Your task to perform on an android device: What's on my calendar today? Image 0: 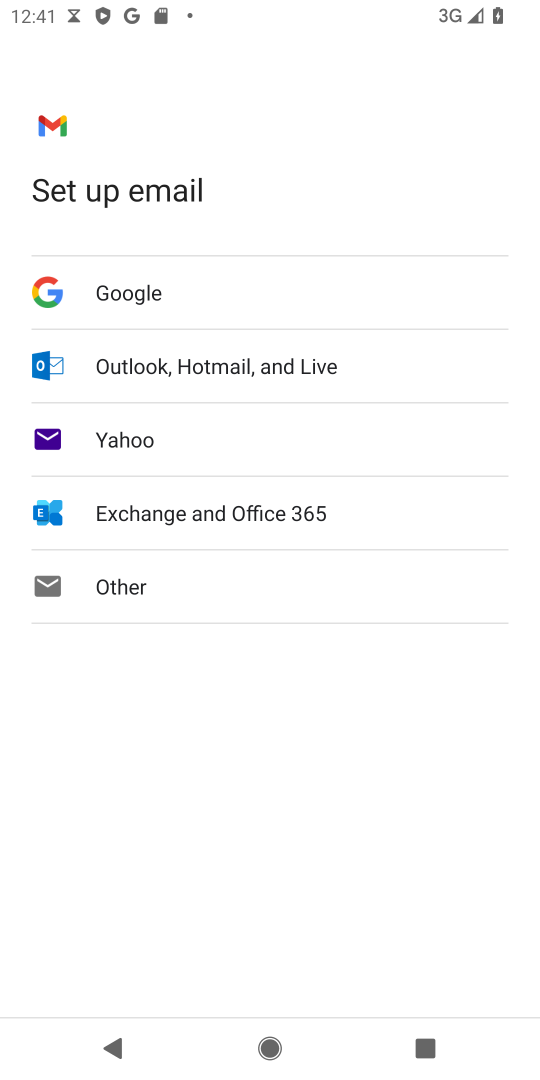
Step 0: press home button
Your task to perform on an android device: What's on my calendar today? Image 1: 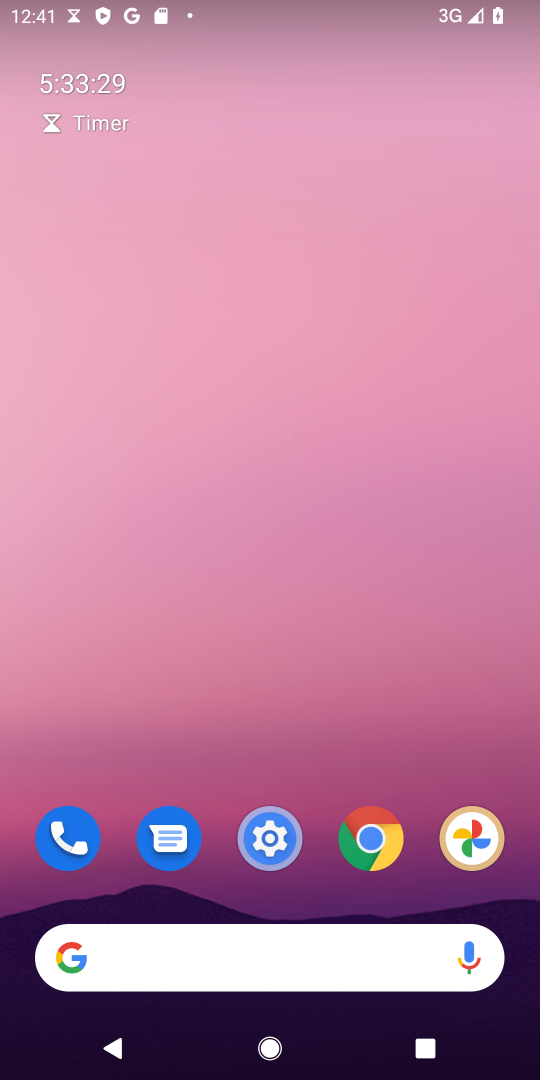
Step 1: drag from (241, 750) to (202, 274)
Your task to perform on an android device: What's on my calendar today? Image 2: 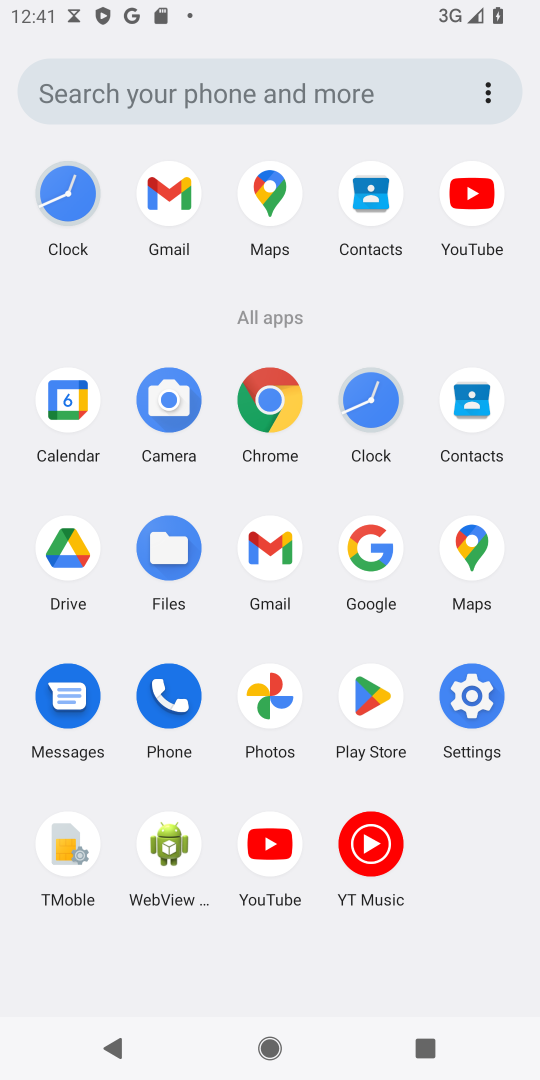
Step 2: click (75, 418)
Your task to perform on an android device: What's on my calendar today? Image 3: 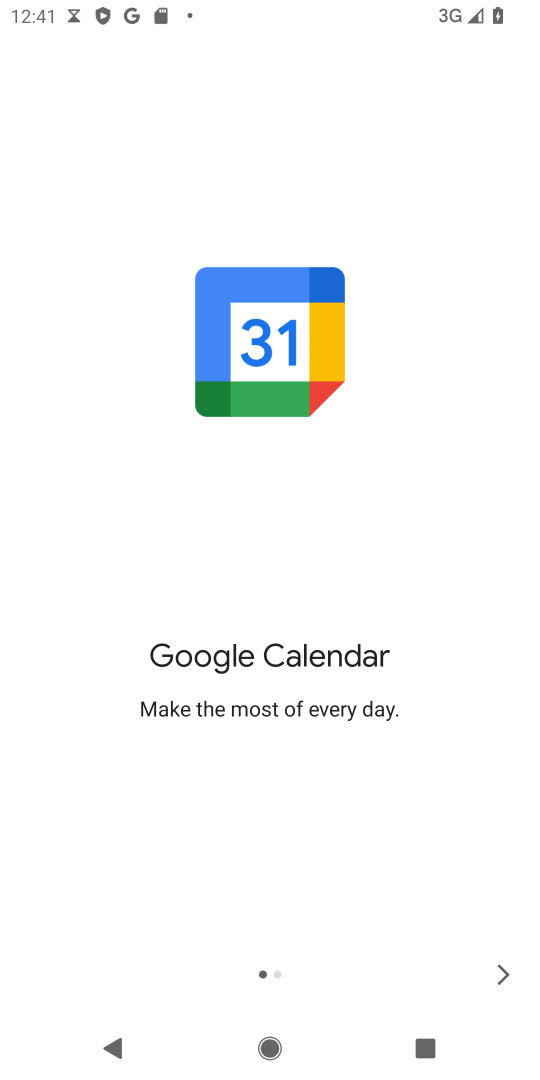
Step 3: click (509, 962)
Your task to perform on an android device: What's on my calendar today? Image 4: 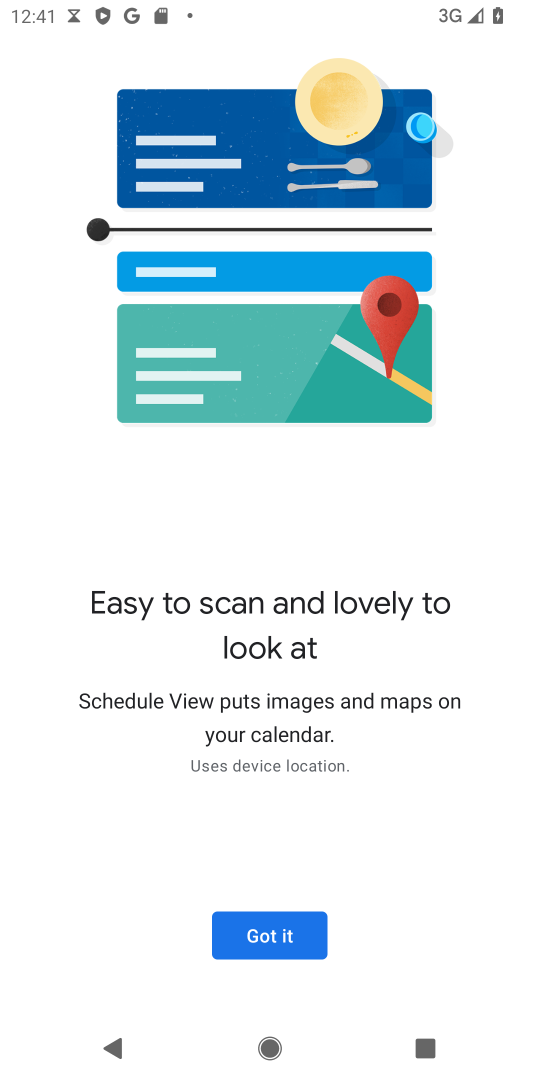
Step 4: click (273, 933)
Your task to perform on an android device: What's on my calendar today? Image 5: 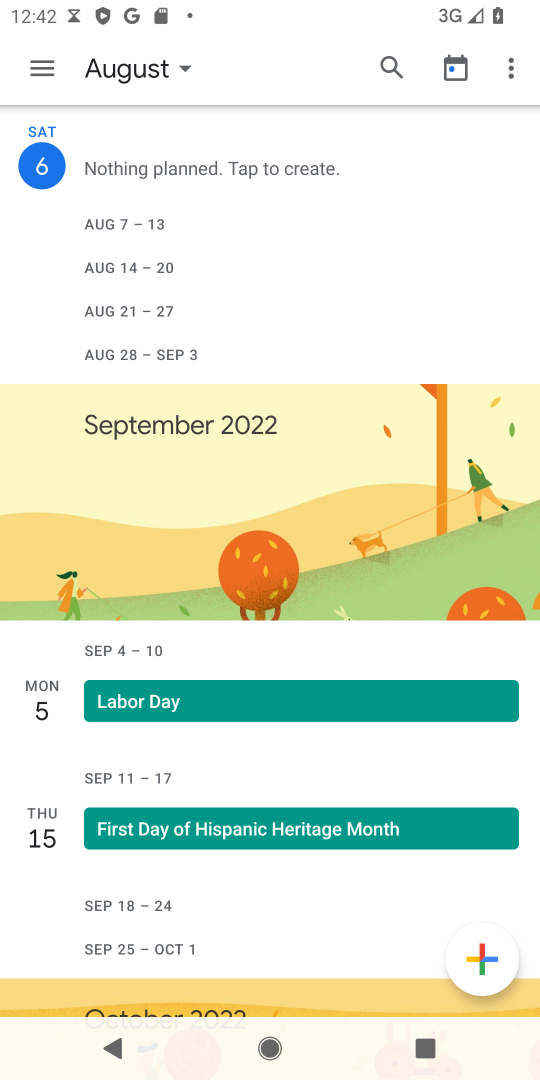
Step 5: click (150, 49)
Your task to perform on an android device: What's on my calendar today? Image 6: 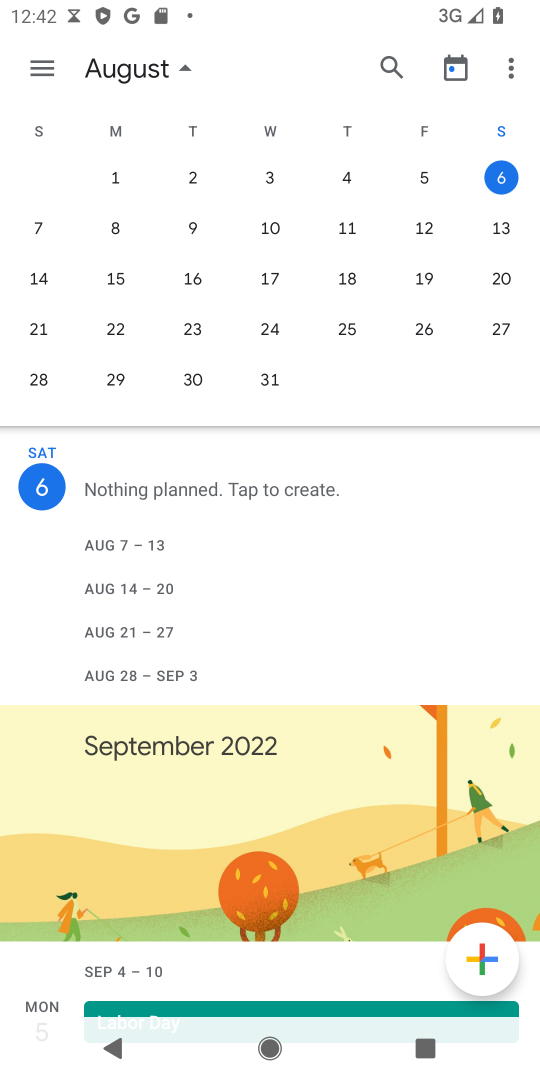
Step 6: click (512, 170)
Your task to perform on an android device: What's on my calendar today? Image 7: 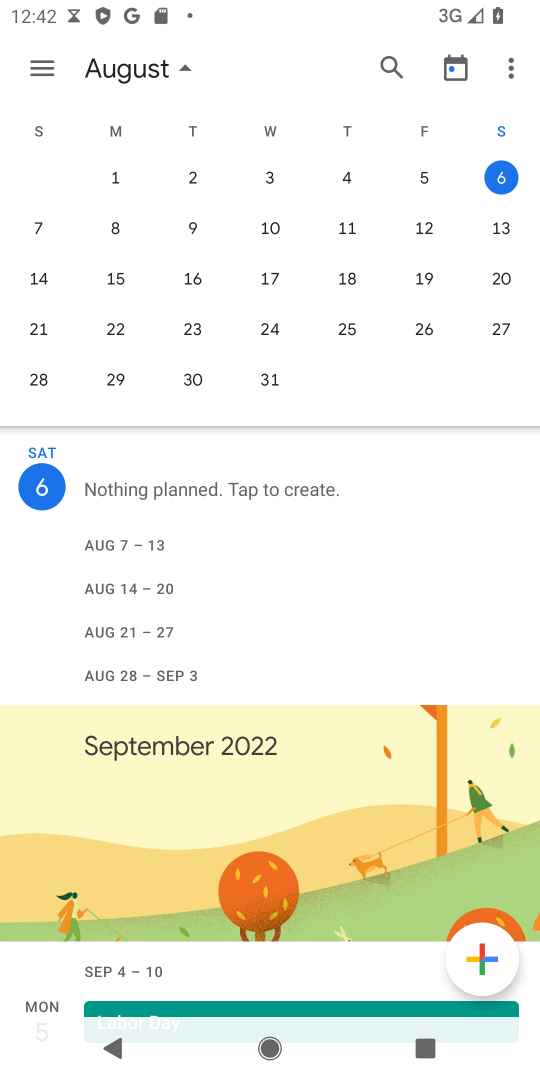
Step 7: task complete